Your task to perform on an android device: Search for Mexican restaurants on Maps Image 0: 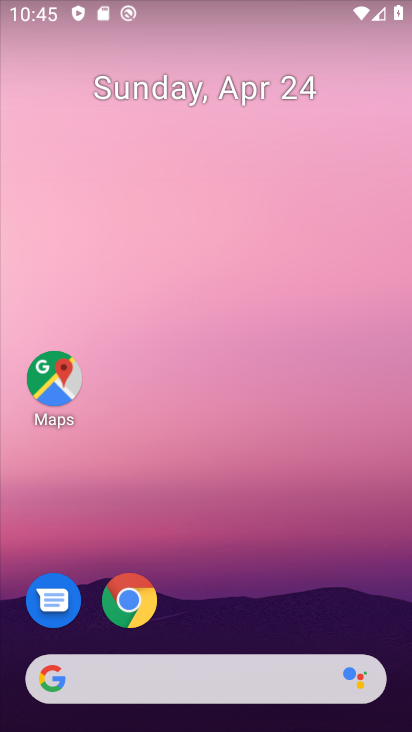
Step 0: click (54, 358)
Your task to perform on an android device: Search for Mexican restaurants on Maps Image 1: 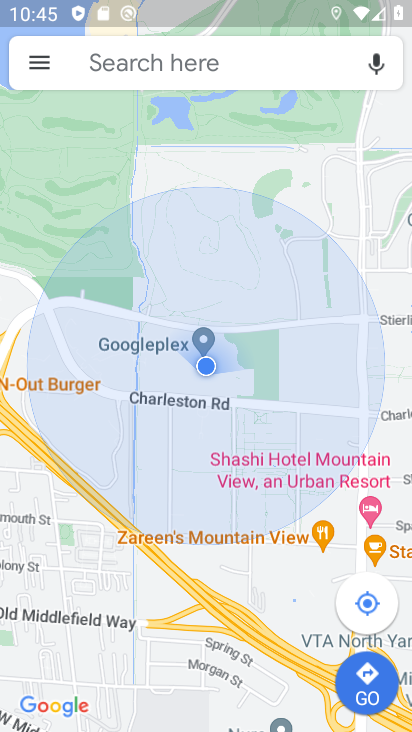
Step 1: click (197, 76)
Your task to perform on an android device: Search for Mexican restaurants on Maps Image 2: 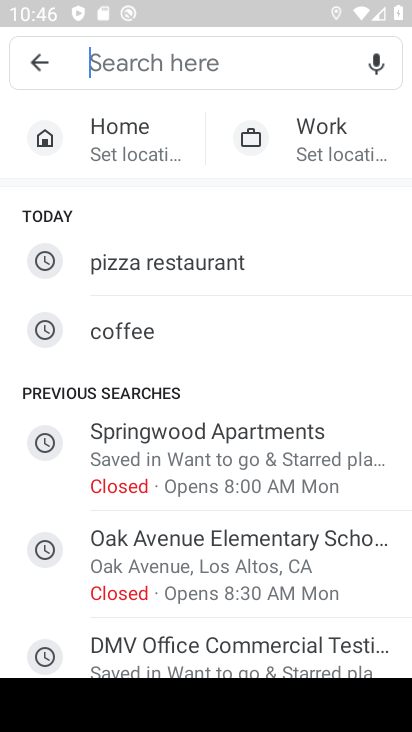
Step 2: type "mexican restaurant"
Your task to perform on an android device: Search for Mexican restaurants on Maps Image 3: 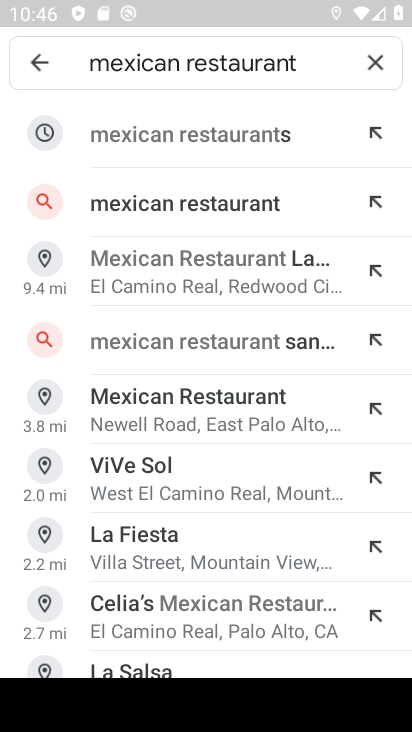
Step 3: click (168, 196)
Your task to perform on an android device: Search for Mexican restaurants on Maps Image 4: 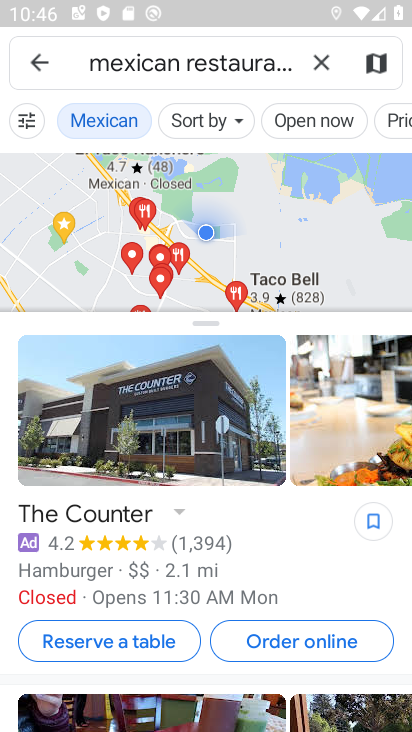
Step 4: task complete